Your task to perform on an android device: toggle translation in the chrome app Image 0: 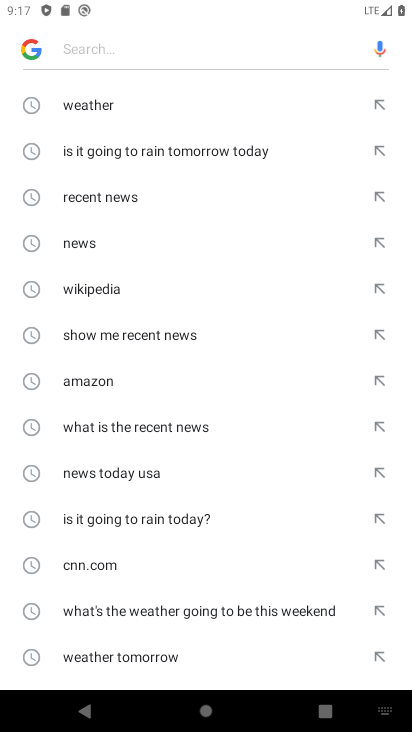
Step 0: press home button
Your task to perform on an android device: toggle translation in the chrome app Image 1: 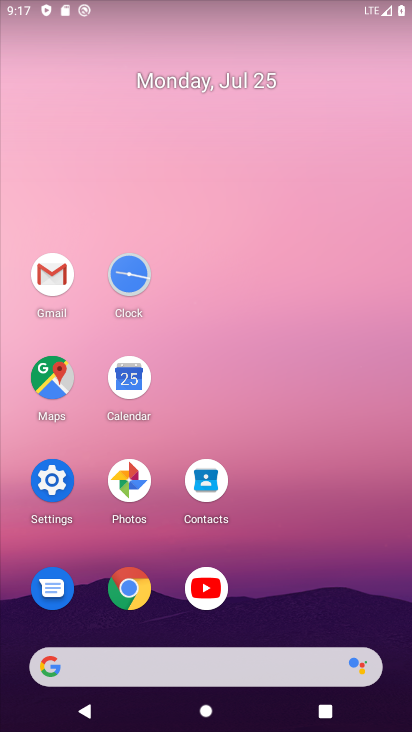
Step 1: click (119, 592)
Your task to perform on an android device: toggle translation in the chrome app Image 2: 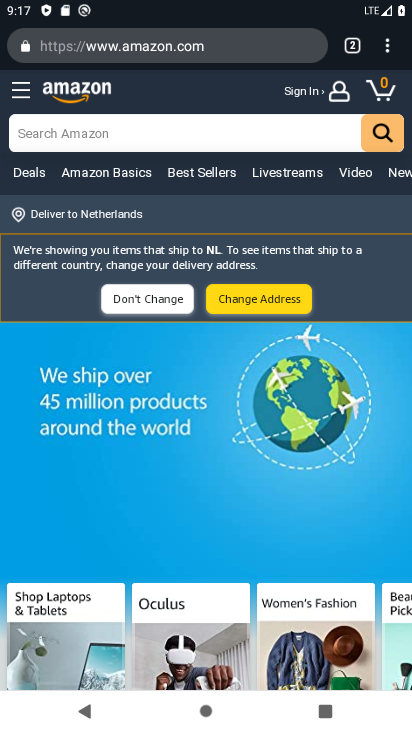
Step 2: click (386, 47)
Your task to perform on an android device: toggle translation in the chrome app Image 3: 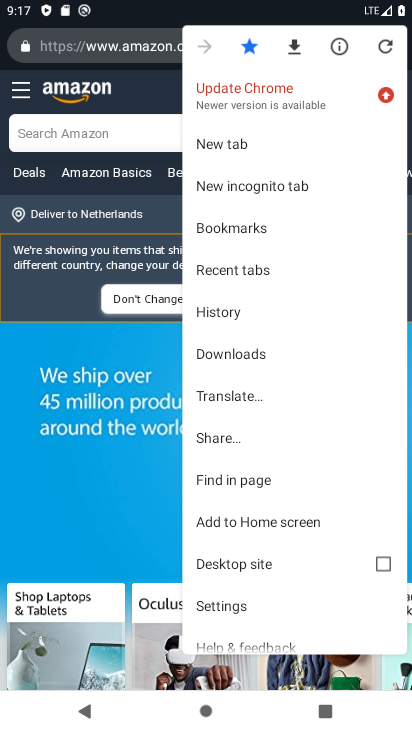
Step 3: click (223, 604)
Your task to perform on an android device: toggle translation in the chrome app Image 4: 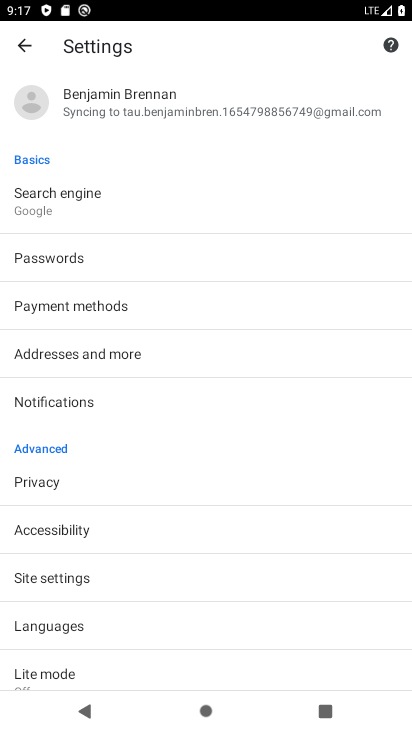
Step 4: click (64, 633)
Your task to perform on an android device: toggle translation in the chrome app Image 5: 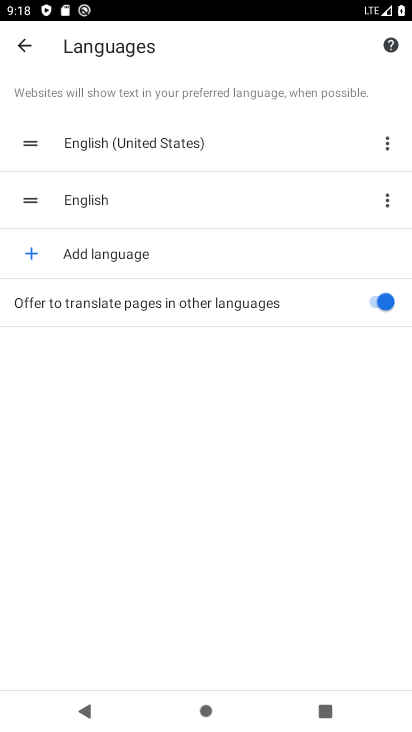
Step 5: click (389, 292)
Your task to perform on an android device: toggle translation in the chrome app Image 6: 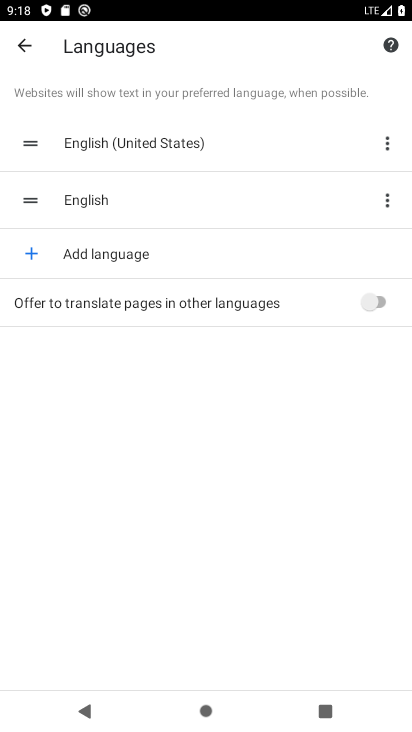
Step 6: task complete